Your task to perform on an android device: Show me the alarms in the clock app Image 0: 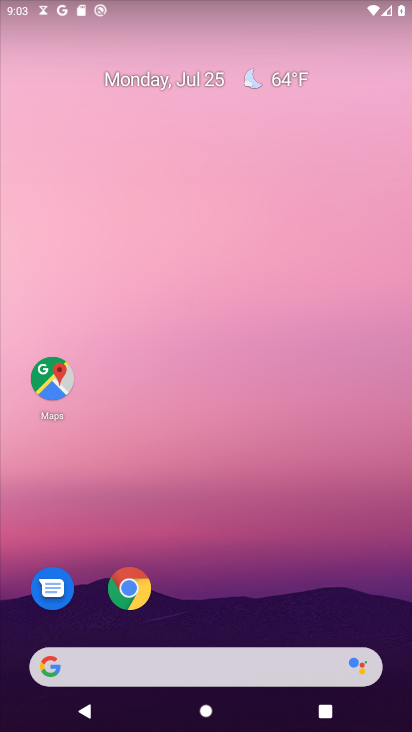
Step 0: click (253, 187)
Your task to perform on an android device: Show me the alarms in the clock app Image 1: 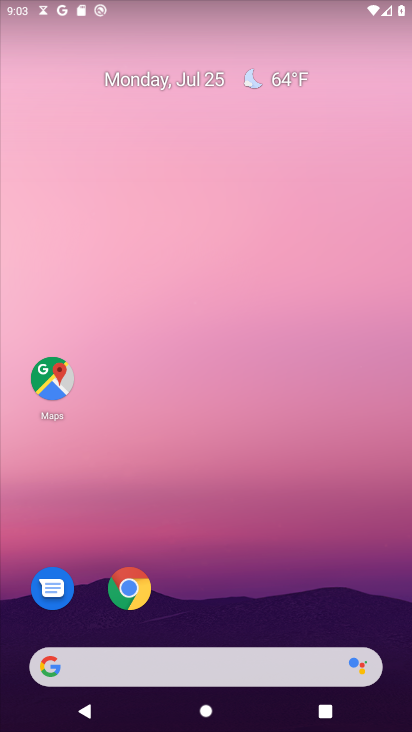
Step 1: drag from (186, 663) to (156, 119)
Your task to perform on an android device: Show me the alarms in the clock app Image 2: 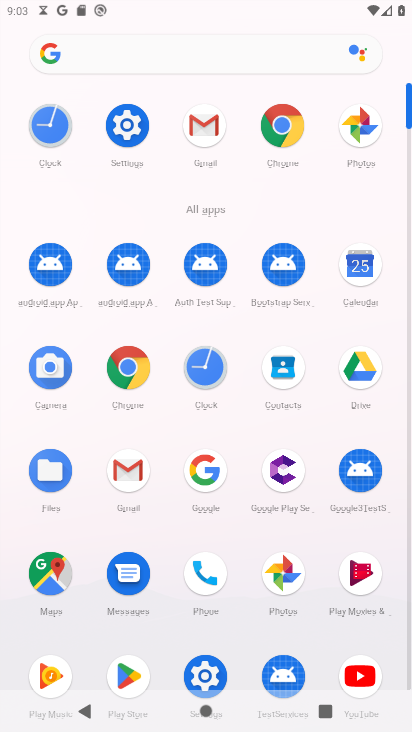
Step 2: click (213, 364)
Your task to perform on an android device: Show me the alarms in the clock app Image 3: 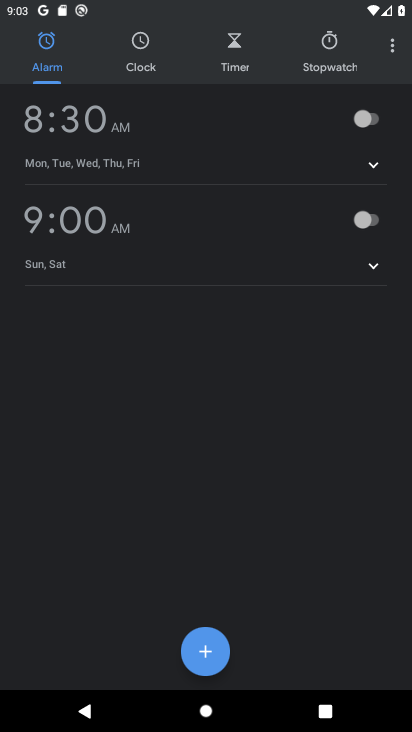
Step 3: task complete